Your task to perform on an android device: Open settings Image 0: 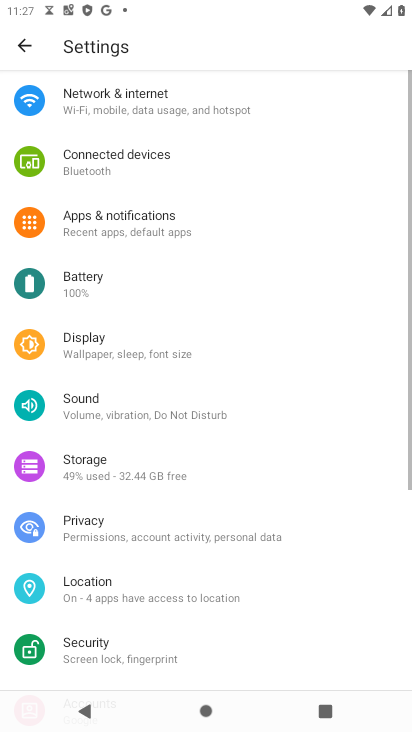
Step 0: press home button
Your task to perform on an android device: Open settings Image 1: 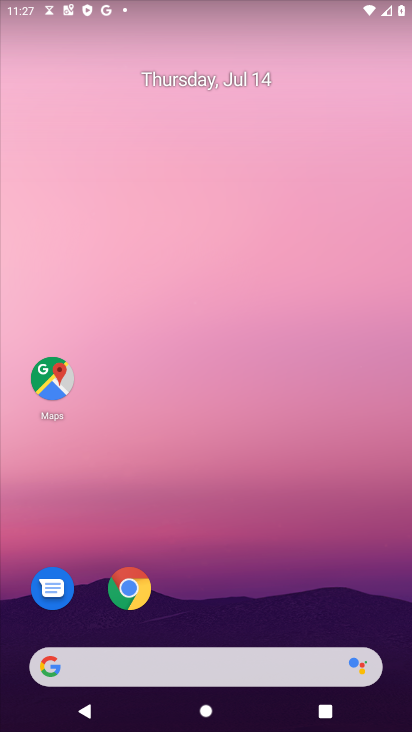
Step 1: drag from (161, 664) to (273, 205)
Your task to perform on an android device: Open settings Image 2: 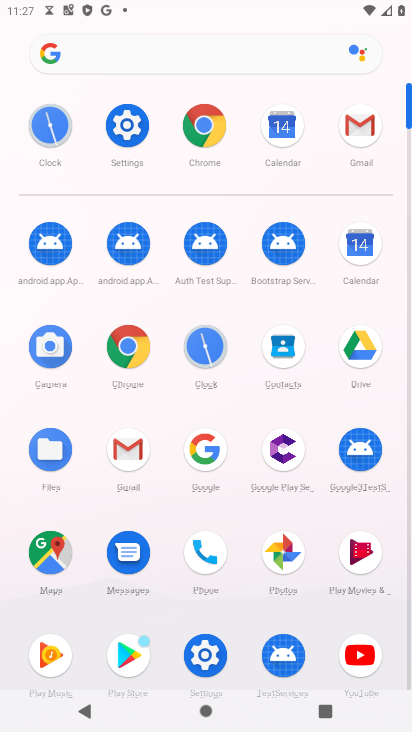
Step 2: click (123, 133)
Your task to perform on an android device: Open settings Image 3: 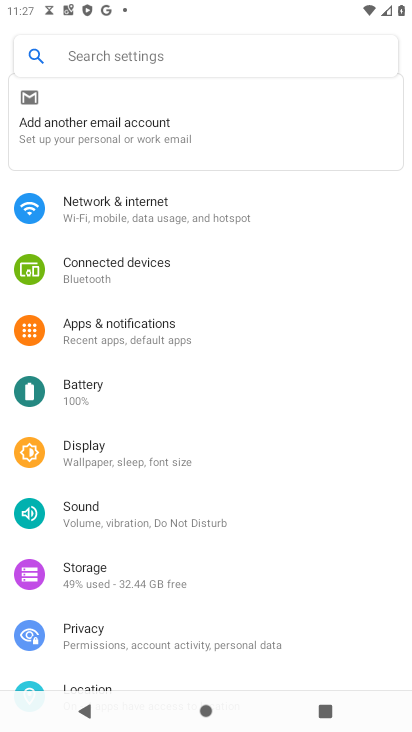
Step 3: task complete